Your task to perform on an android device: Go to Yahoo.com Image 0: 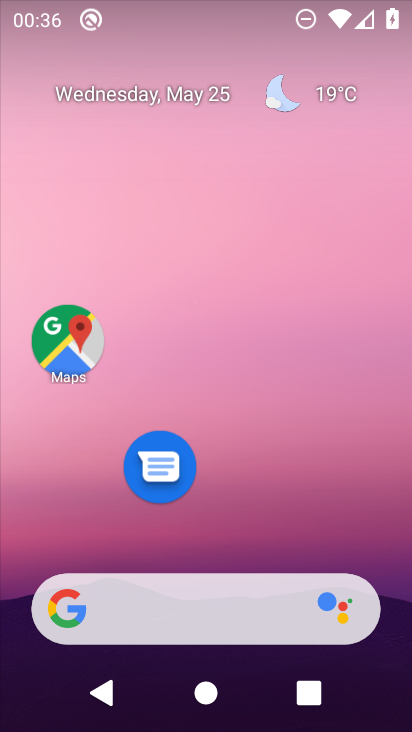
Step 0: drag from (225, 537) to (233, 89)
Your task to perform on an android device: Go to Yahoo.com Image 1: 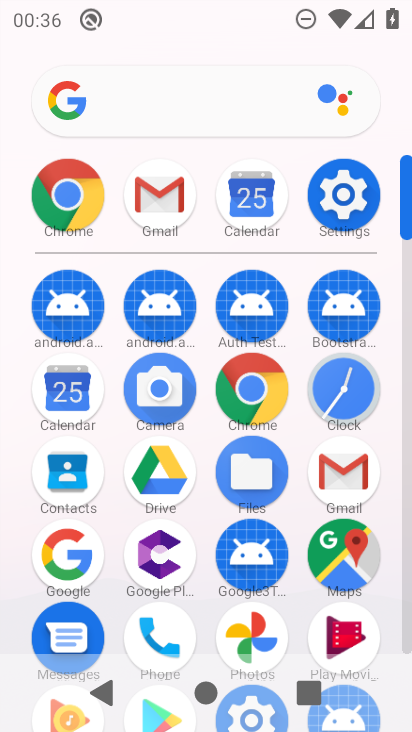
Step 1: click (182, 120)
Your task to perform on an android device: Go to Yahoo.com Image 2: 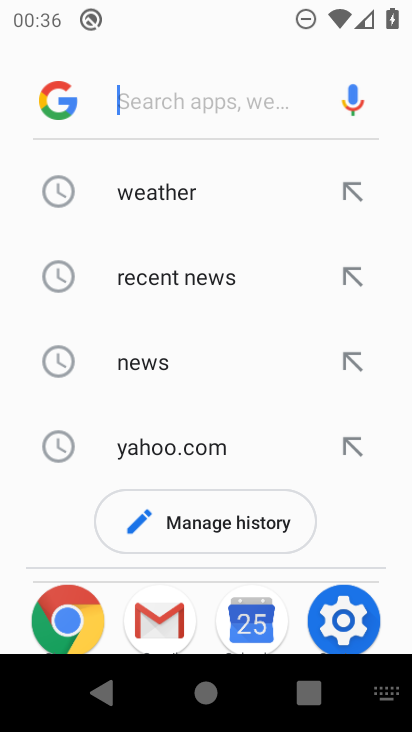
Step 2: click (178, 434)
Your task to perform on an android device: Go to Yahoo.com Image 3: 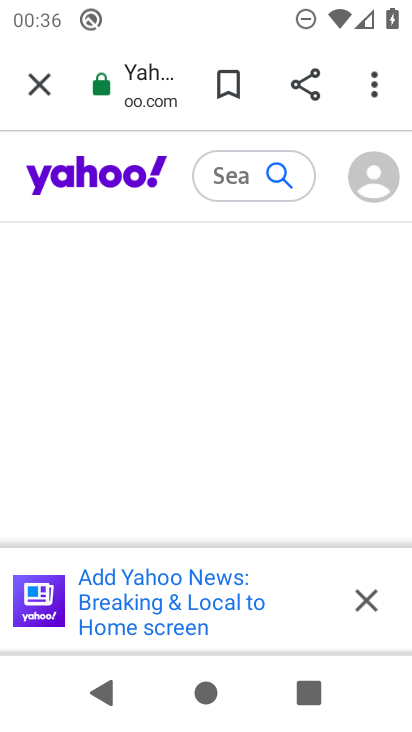
Step 3: task complete